Your task to perform on an android device: change alarm snooze length Image 0: 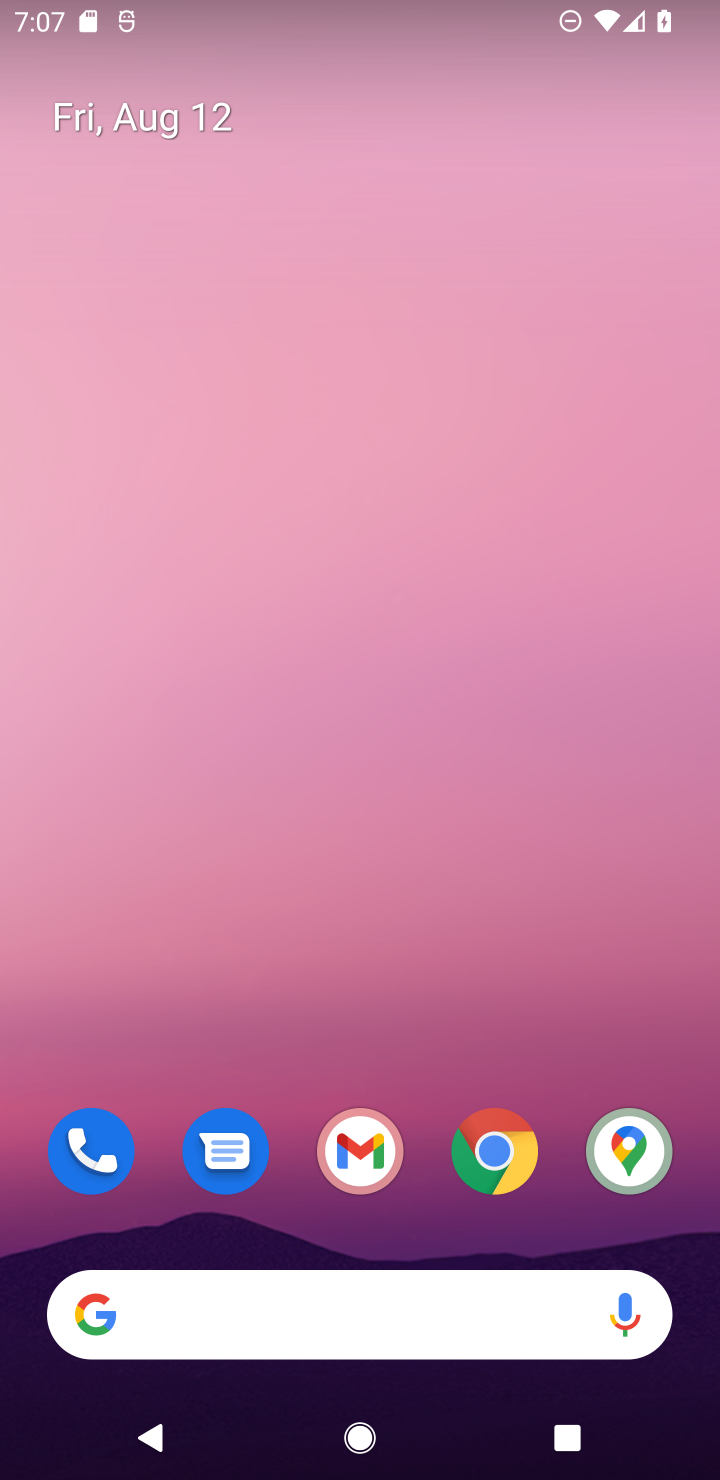
Step 0: drag from (431, 974) to (284, 11)
Your task to perform on an android device: change alarm snooze length Image 1: 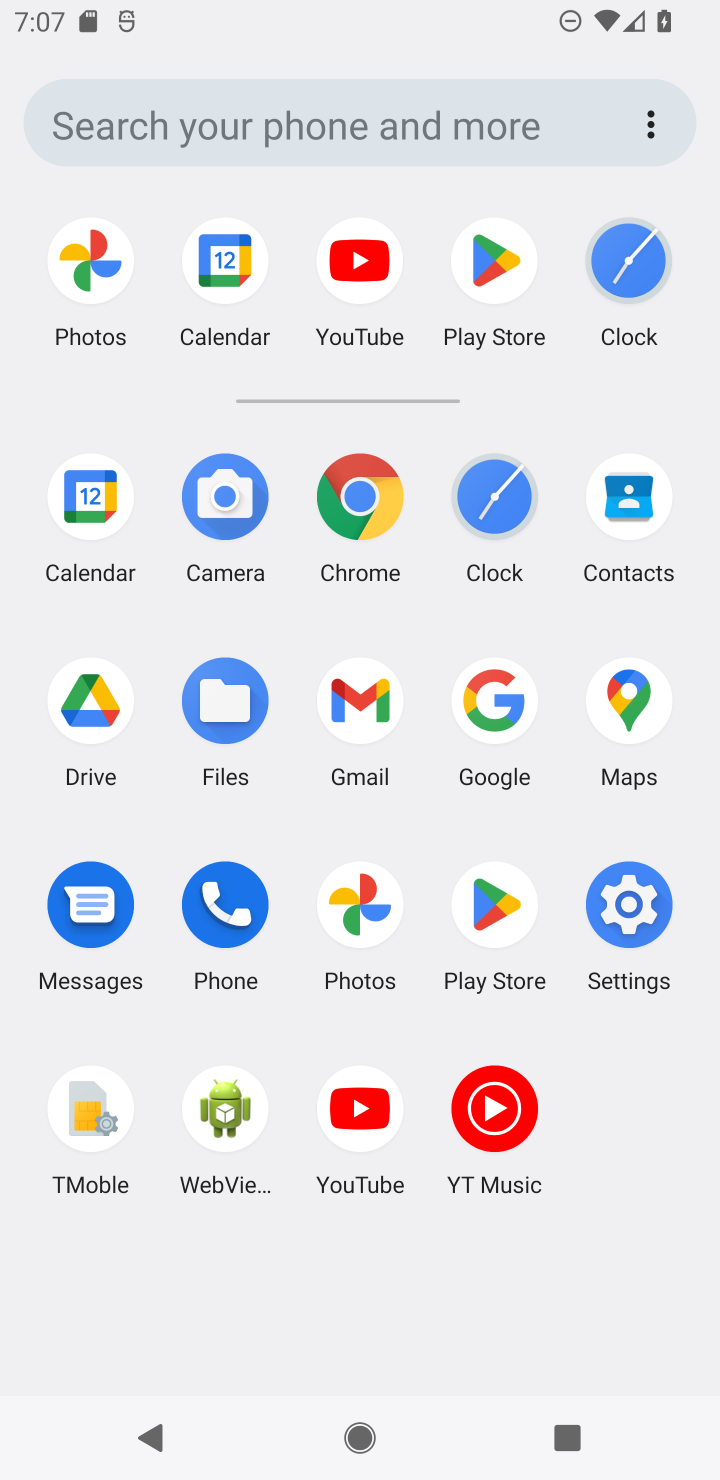
Step 1: click (494, 502)
Your task to perform on an android device: change alarm snooze length Image 2: 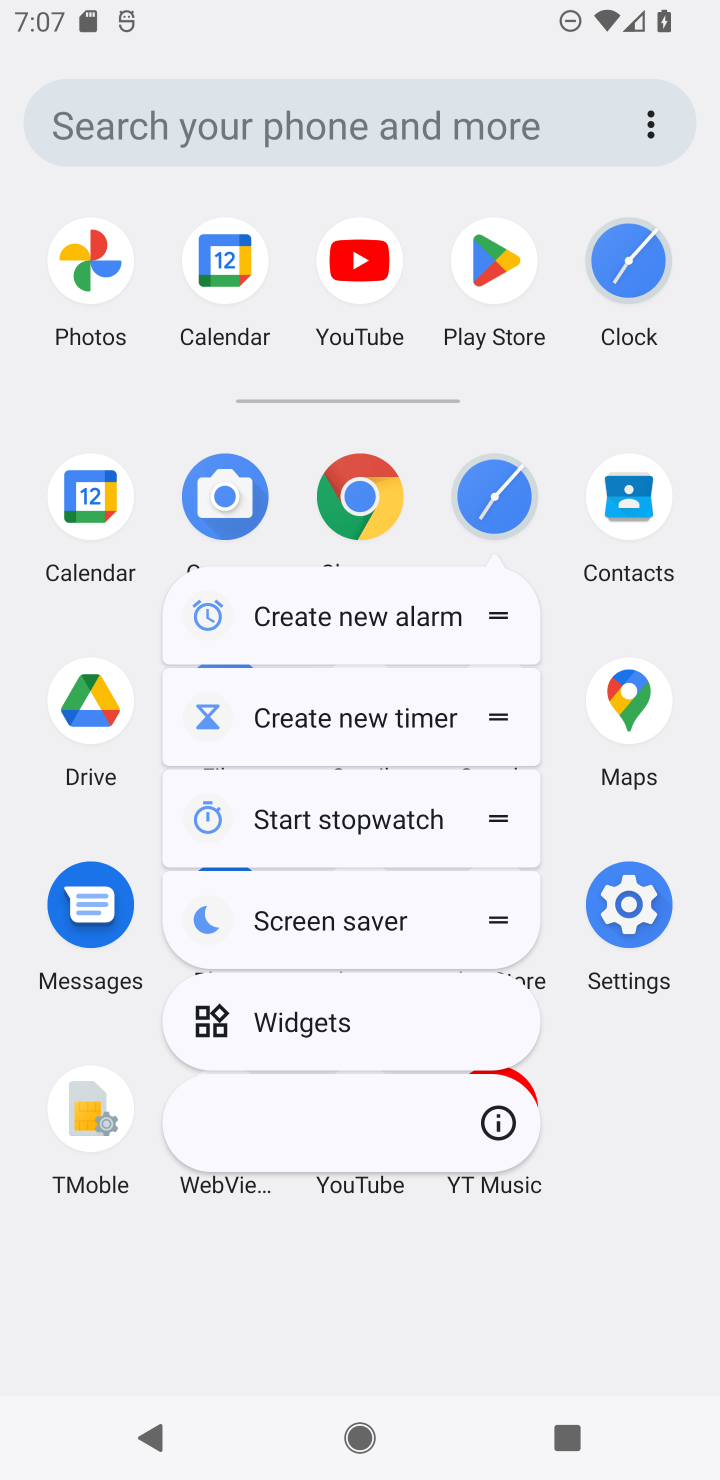
Step 2: click (487, 492)
Your task to perform on an android device: change alarm snooze length Image 3: 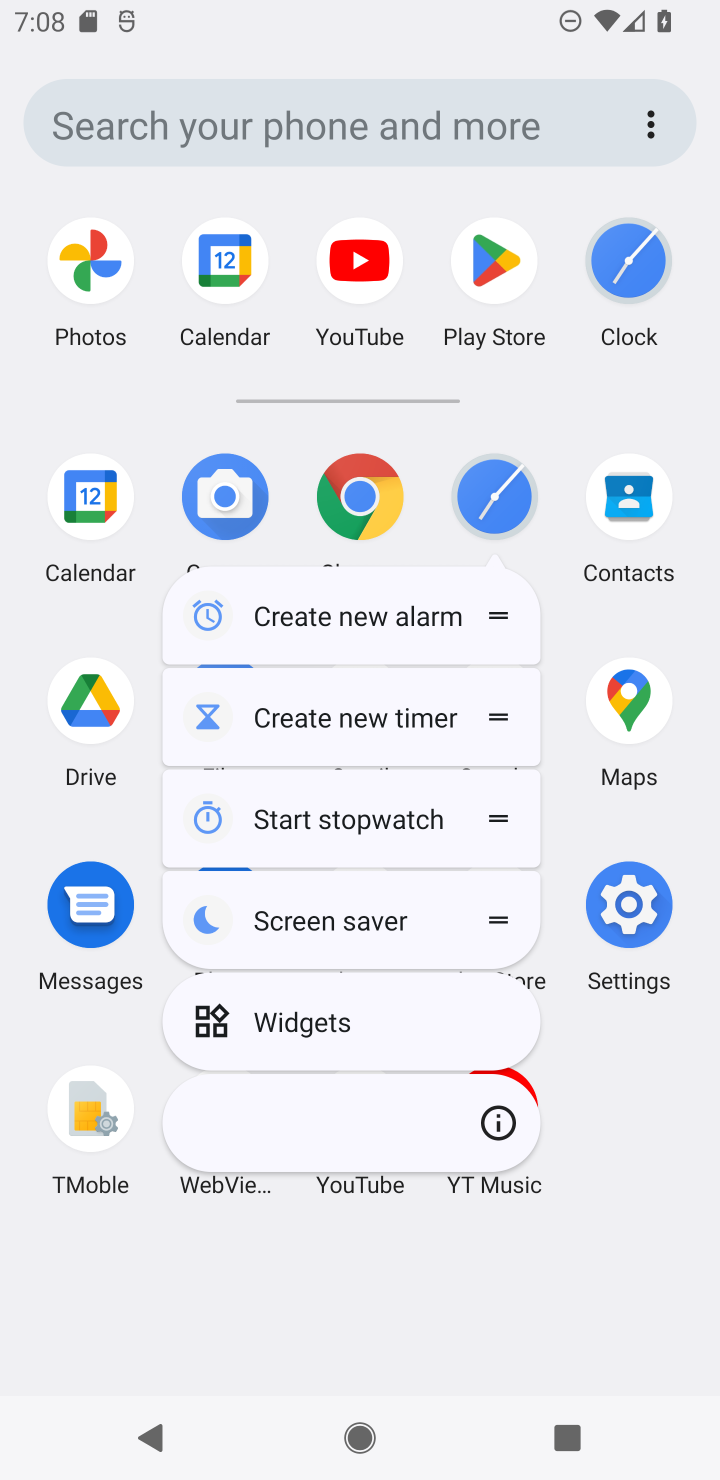
Step 3: click (487, 492)
Your task to perform on an android device: change alarm snooze length Image 4: 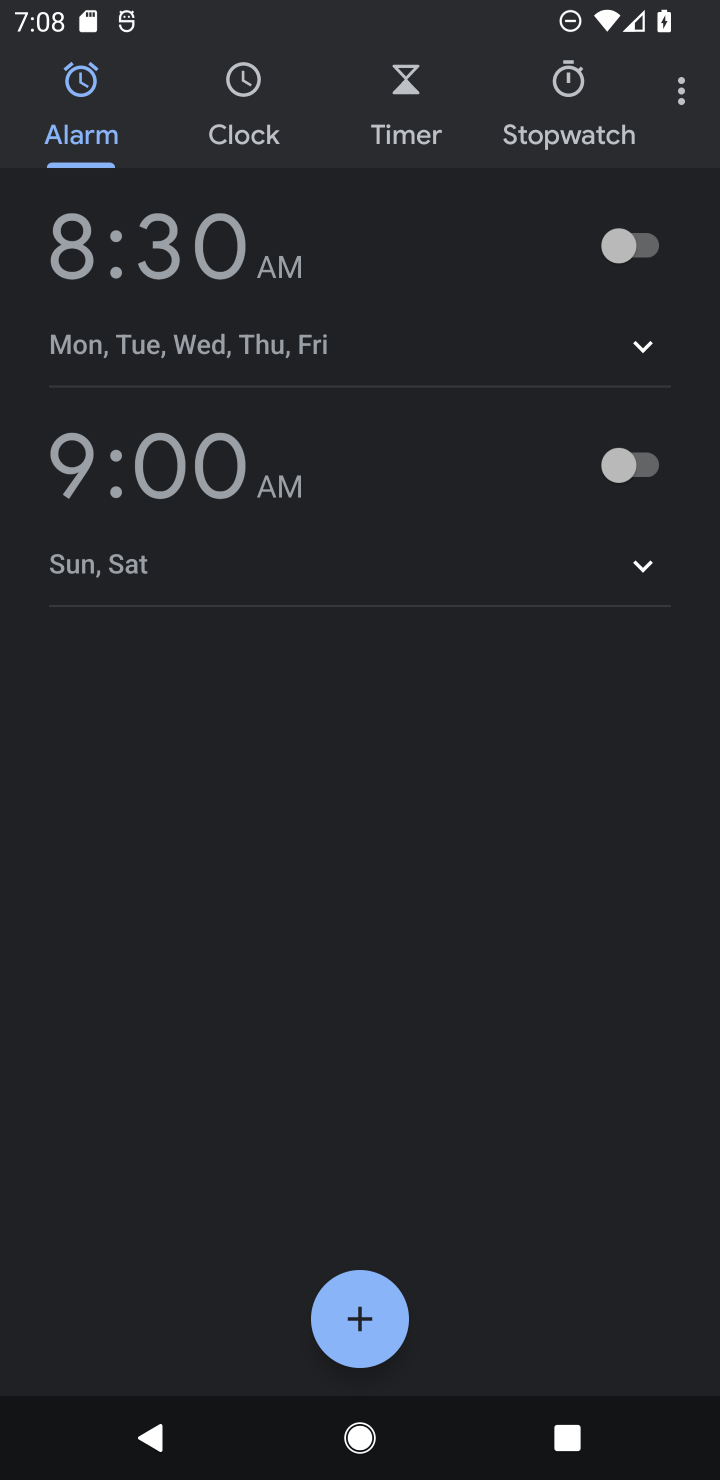
Step 4: click (687, 82)
Your task to perform on an android device: change alarm snooze length Image 5: 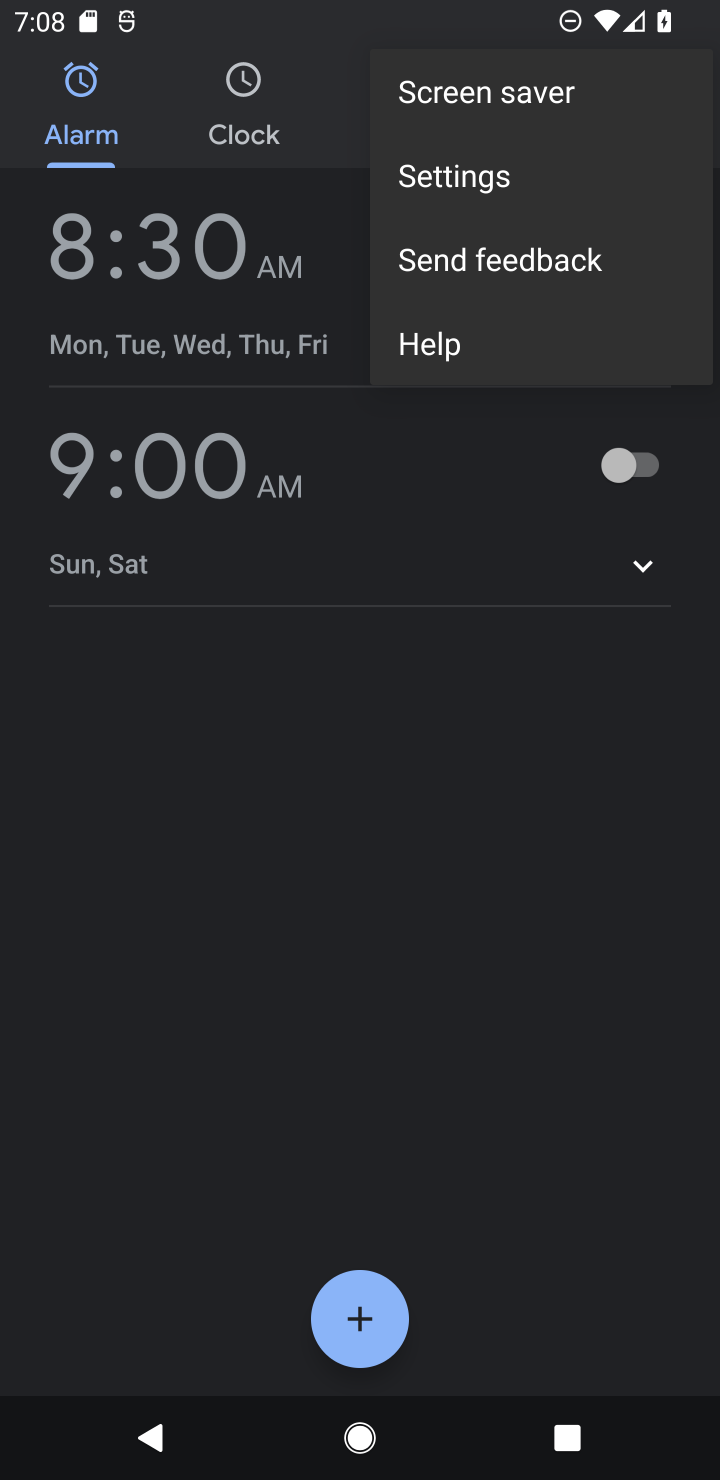
Step 5: click (522, 198)
Your task to perform on an android device: change alarm snooze length Image 6: 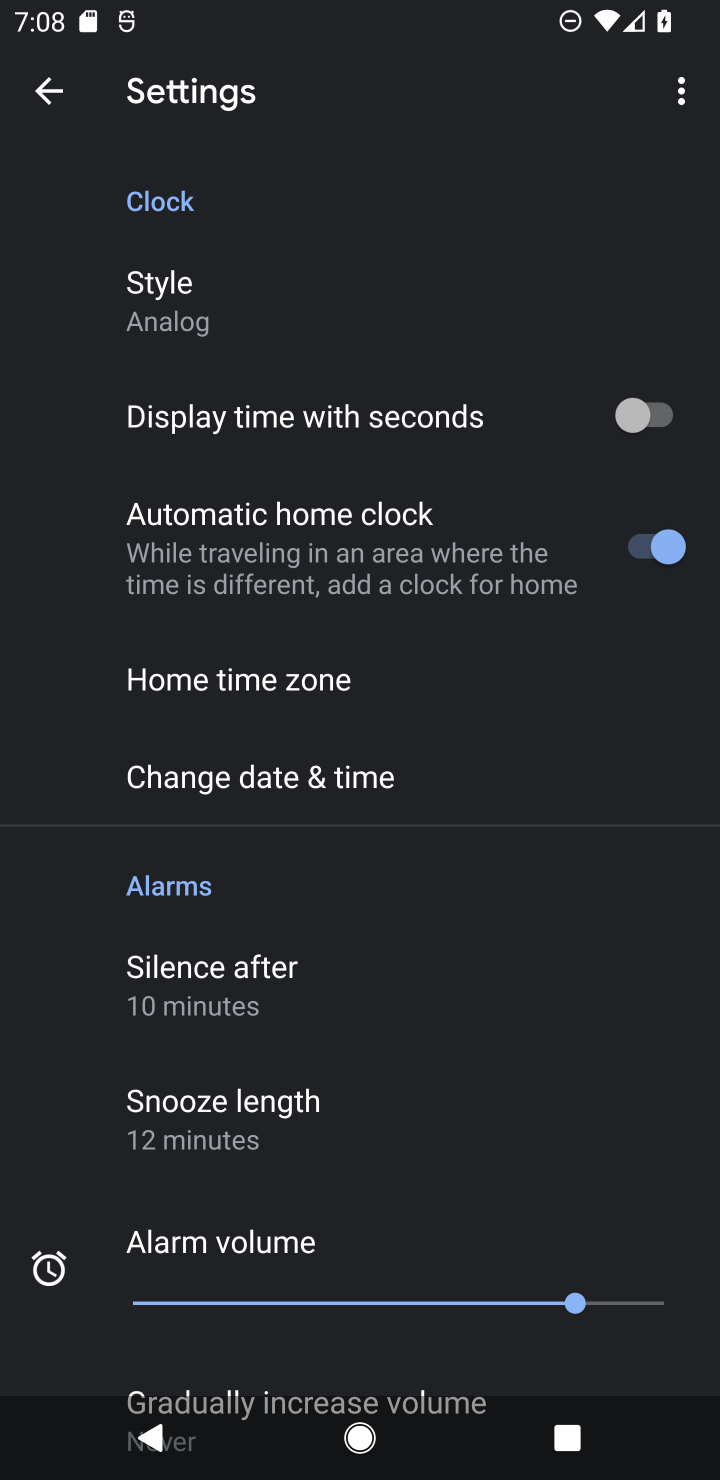
Step 6: click (278, 1103)
Your task to perform on an android device: change alarm snooze length Image 7: 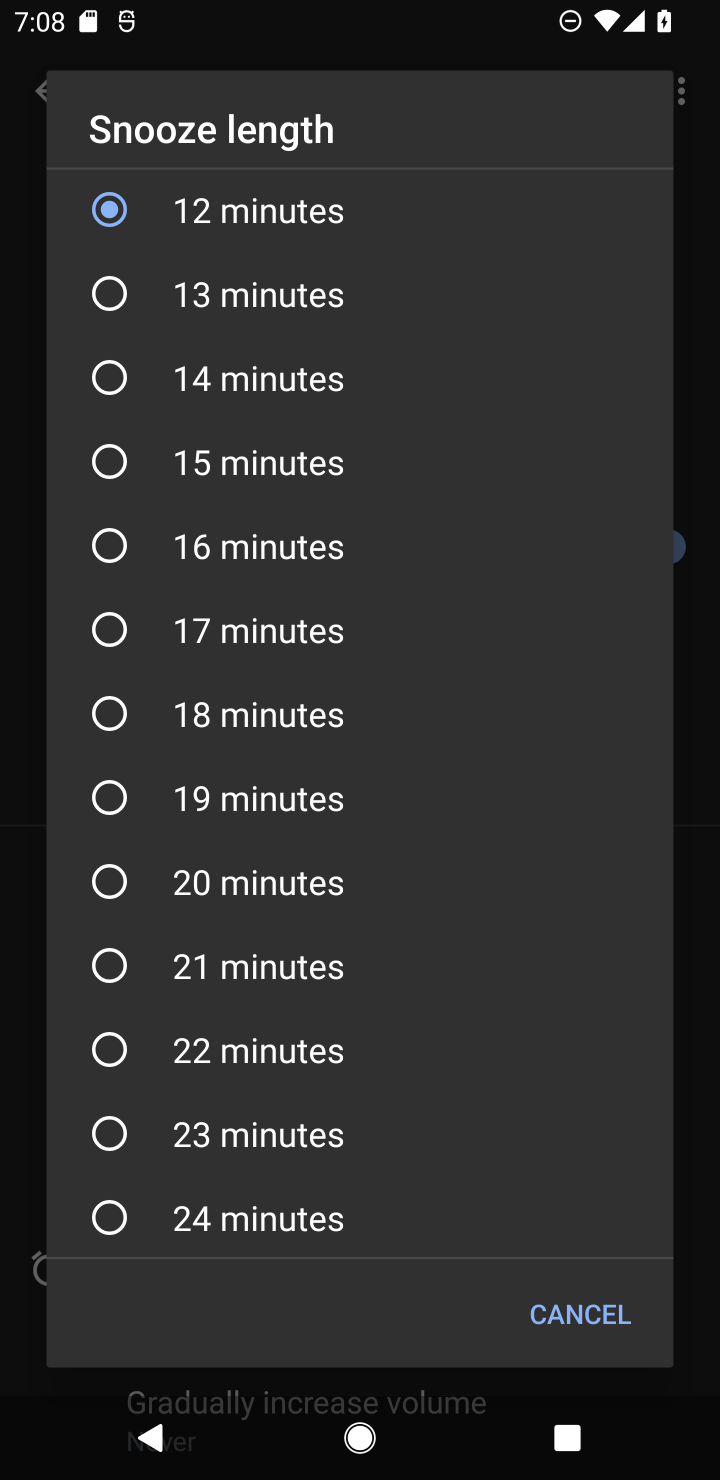
Step 7: click (293, 295)
Your task to perform on an android device: change alarm snooze length Image 8: 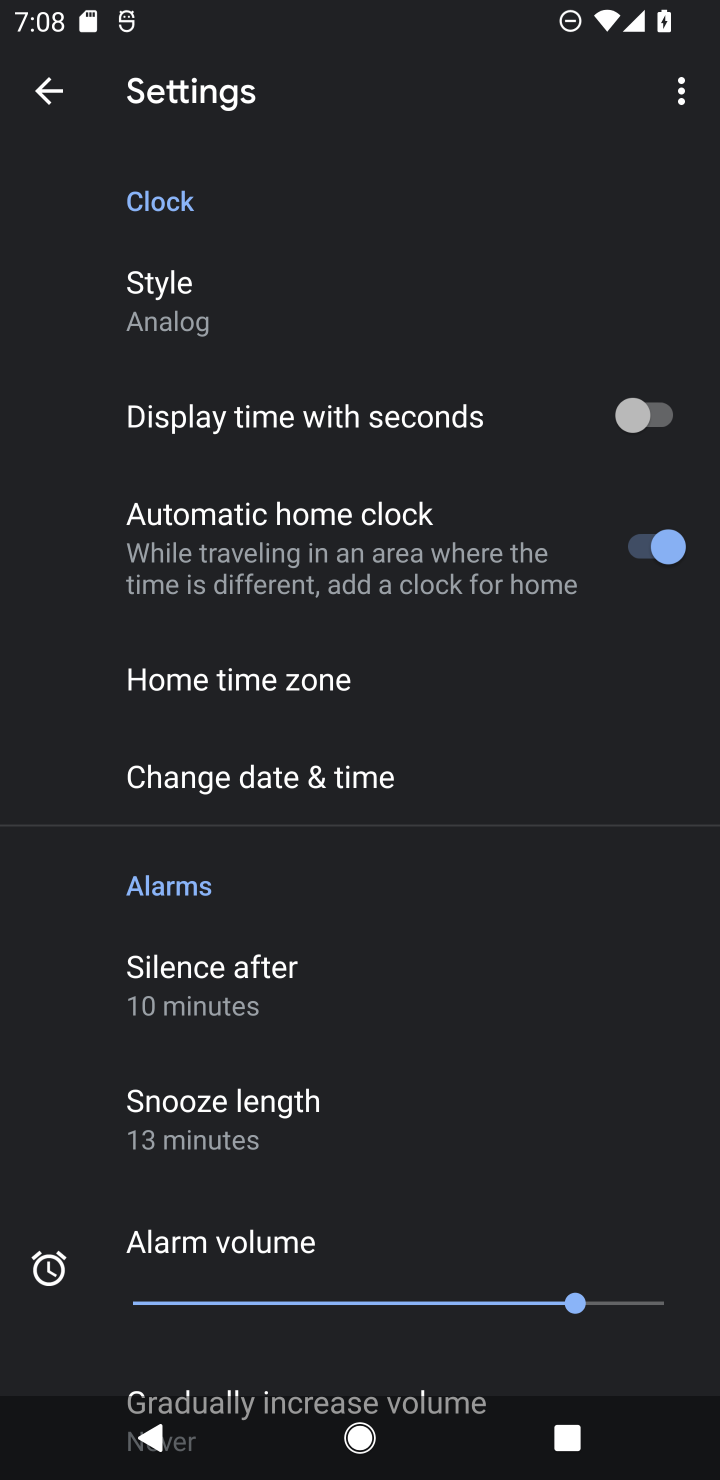
Step 8: task complete